Your task to perform on an android device: Open maps Image 0: 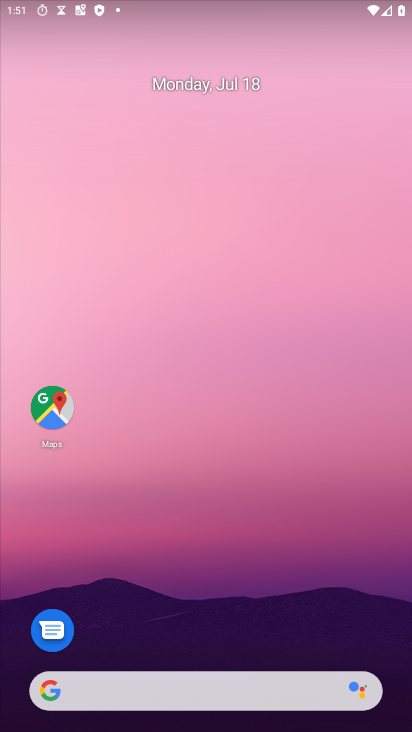
Step 0: drag from (262, 652) to (260, 3)
Your task to perform on an android device: Open maps Image 1: 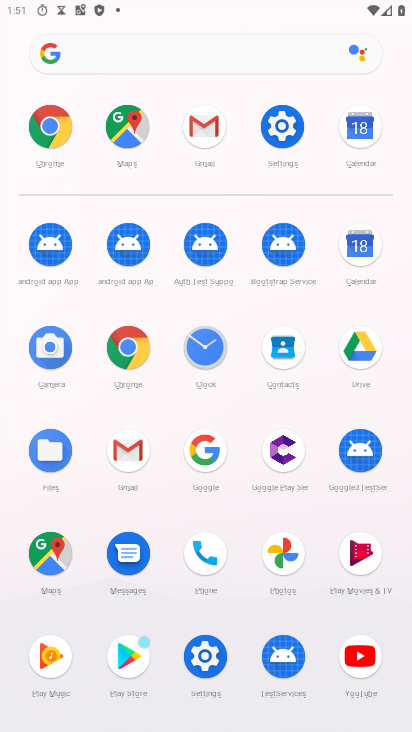
Step 1: click (56, 549)
Your task to perform on an android device: Open maps Image 2: 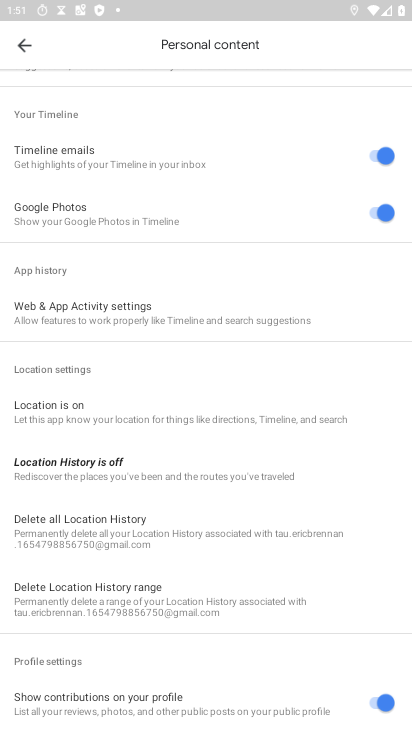
Step 2: task complete